Your task to perform on an android device: toggle data saver in the chrome app Image 0: 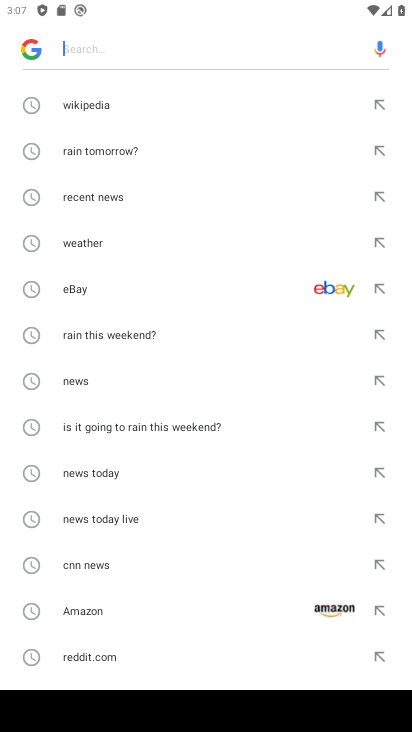
Step 0: press home button
Your task to perform on an android device: toggle data saver in the chrome app Image 1: 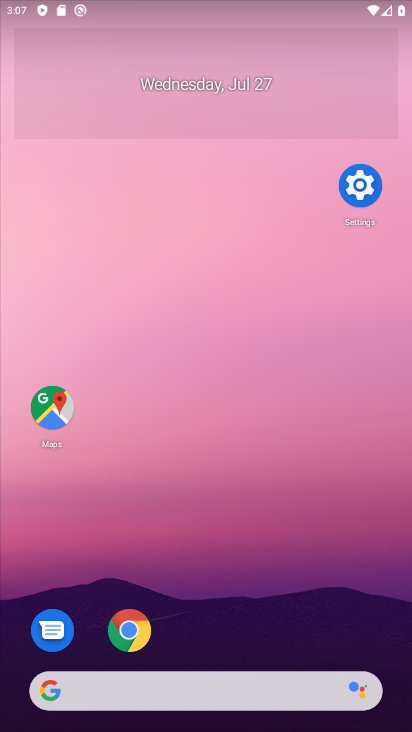
Step 1: drag from (181, 373) to (169, 251)
Your task to perform on an android device: toggle data saver in the chrome app Image 2: 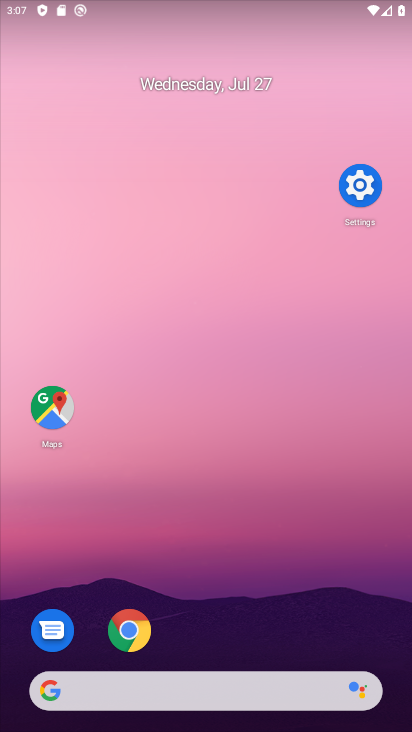
Step 2: click (116, 648)
Your task to perform on an android device: toggle data saver in the chrome app Image 3: 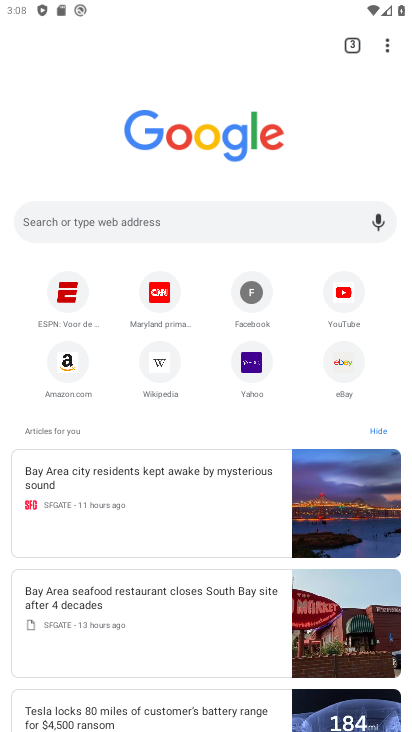
Step 3: drag from (383, 45) to (239, 429)
Your task to perform on an android device: toggle data saver in the chrome app Image 4: 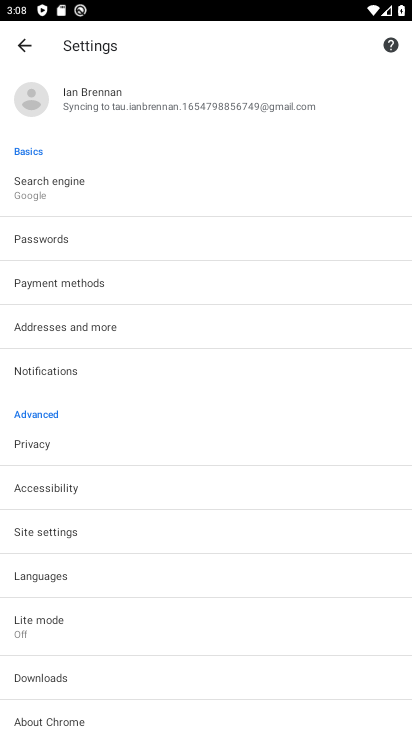
Step 4: click (45, 618)
Your task to perform on an android device: toggle data saver in the chrome app Image 5: 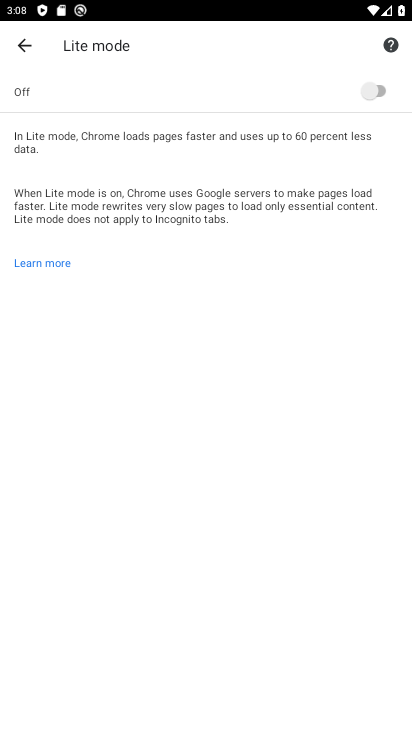
Step 5: click (367, 92)
Your task to perform on an android device: toggle data saver in the chrome app Image 6: 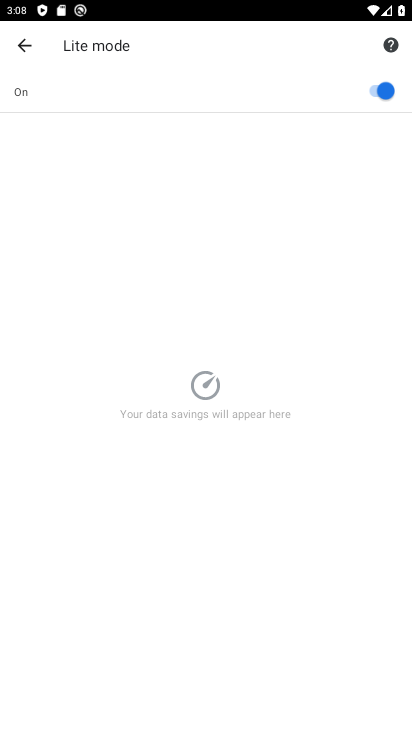
Step 6: task complete